Your task to perform on an android device: What's the latest video from Game Informer? Image 0: 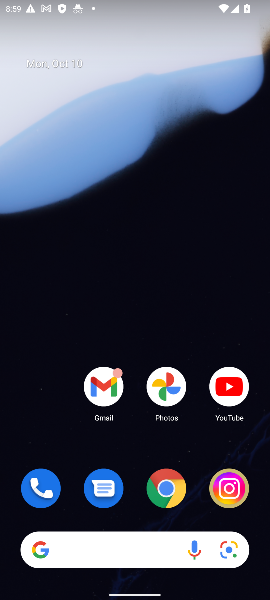
Step 0: drag from (140, 454) to (208, 131)
Your task to perform on an android device: What's the latest video from Game Informer? Image 1: 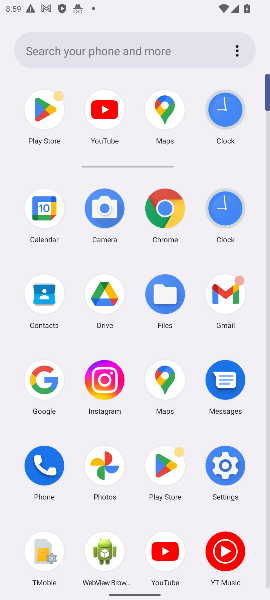
Step 1: click (109, 114)
Your task to perform on an android device: What's the latest video from Game Informer? Image 2: 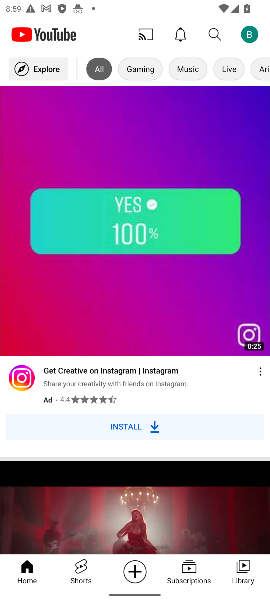
Step 2: click (216, 39)
Your task to perform on an android device: What's the latest video from Game Informer? Image 3: 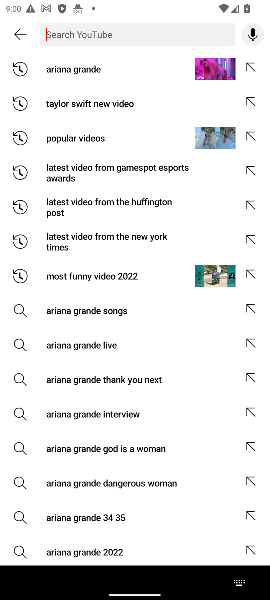
Step 3: type "Game Informer"
Your task to perform on an android device: What's the latest video from Game Informer? Image 4: 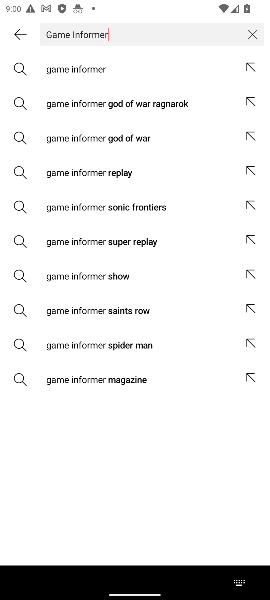
Step 4: press enter
Your task to perform on an android device: What's the latest video from Game Informer? Image 5: 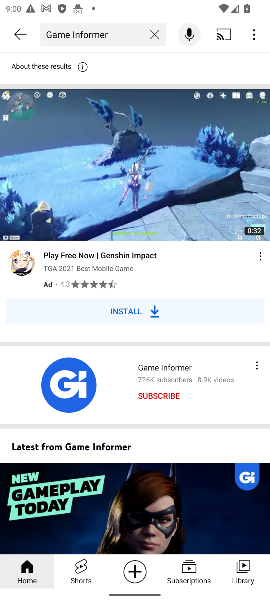
Step 5: drag from (187, 435) to (194, 193)
Your task to perform on an android device: What's the latest video from Game Informer? Image 6: 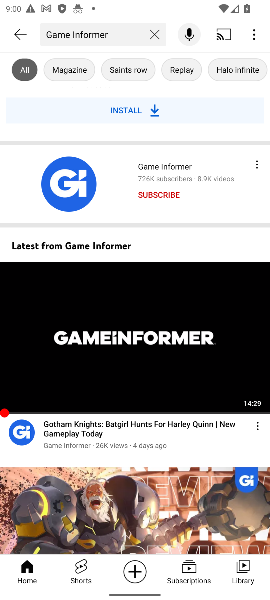
Step 6: click (177, 161)
Your task to perform on an android device: What's the latest video from Game Informer? Image 7: 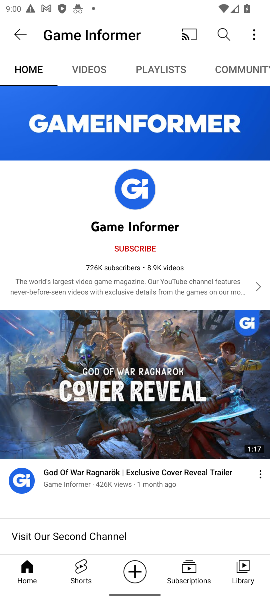
Step 7: drag from (157, 441) to (116, 160)
Your task to perform on an android device: What's the latest video from Game Informer? Image 8: 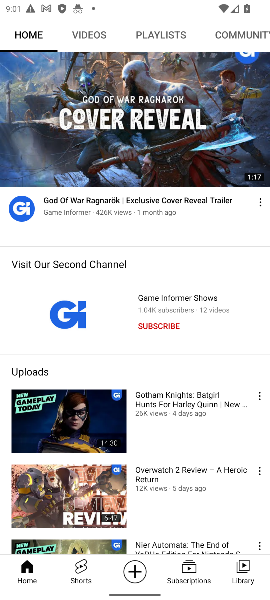
Step 8: click (78, 23)
Your task to perform on an android device: What's the latest video from Game Informer? Image 9: 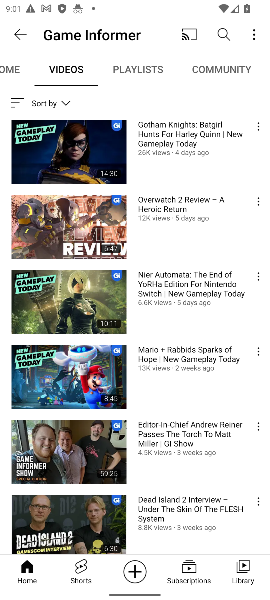
Step 9: click (82, 134)
Your task to perform on an android device: What's the latest video from Game Informer? Image 10: 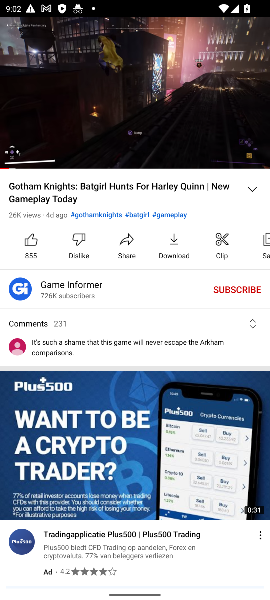
Step 10: task complete